Your task to perform on an android device: Do I have any events today? Image 0: 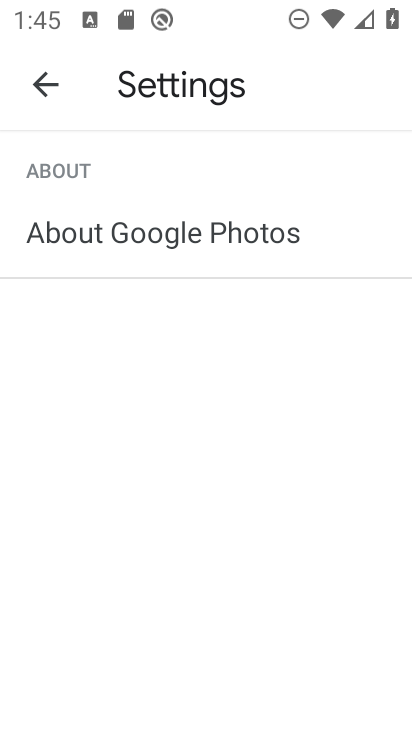
Step 0: press home button
Your task to perform on an android device: Do I have any events today? Image 1: 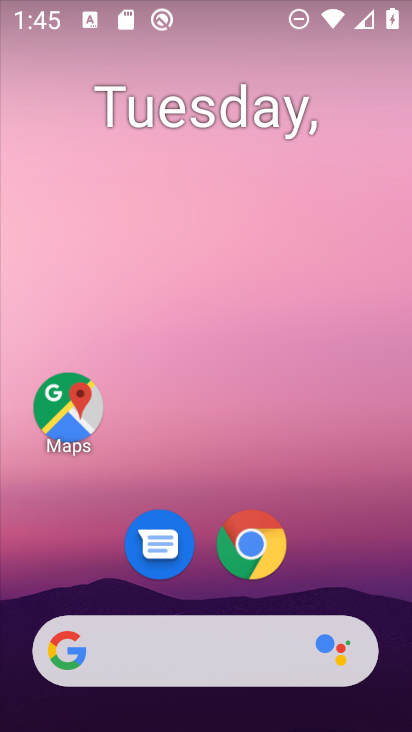
Step 1: drag from (396, 638) to (276, 30)
Your task to perform on an android device: Do I have any events today? Image 2: 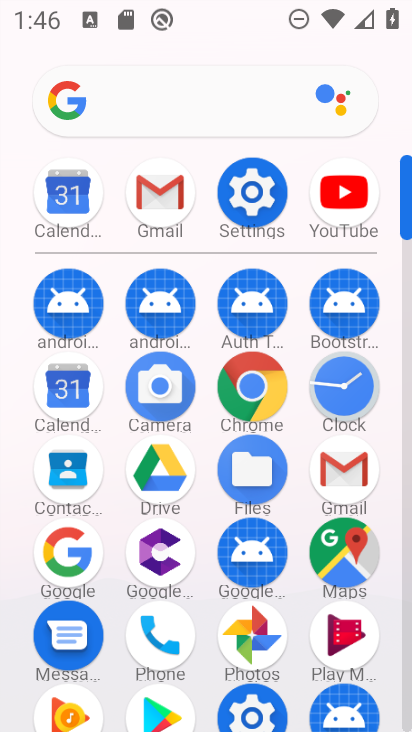
Step 2: click (408, 697)
Your task to perform on an android device: Do I have any events today? Image 3: 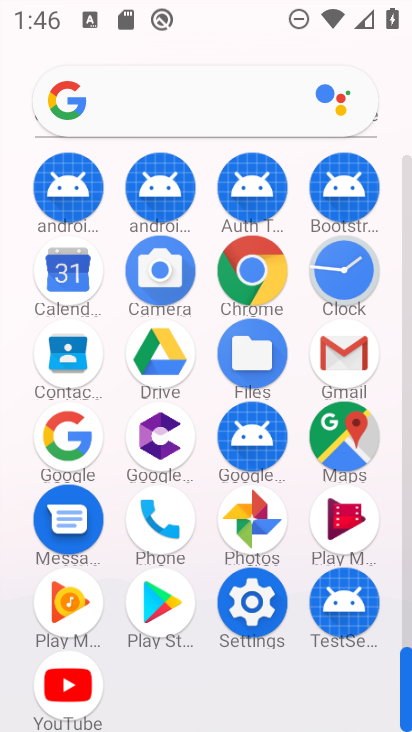
Step 3: click (64, 269)
Your task to perform on an android device: Do I have any events today? Image 4: 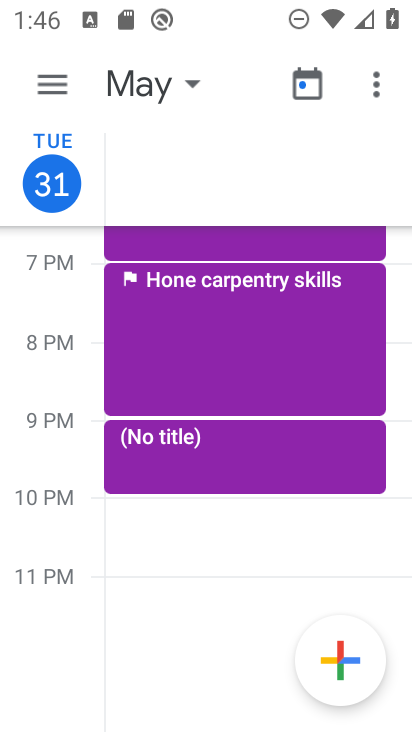
Step 4: click (58, 85)
Your task to perform on an android device: Do I have any events today? Image 5: 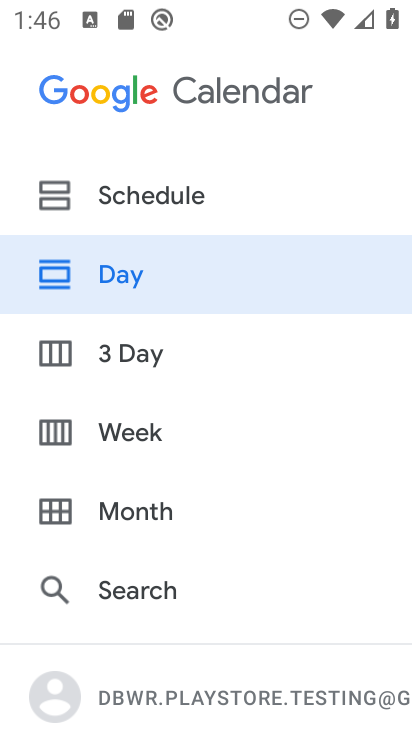
Step 5: click (139, 275)
Your task to perform on an android device: Do I have any events today? Image 6: 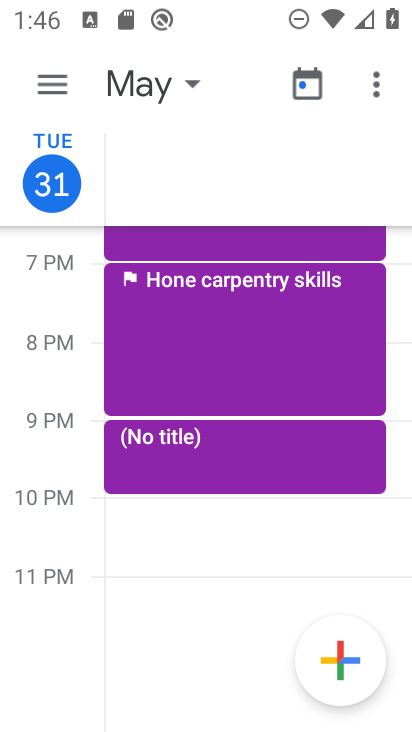
Step 6: task complete